Your task to perform on an android device: turn on translation in the chrome app Image 0: 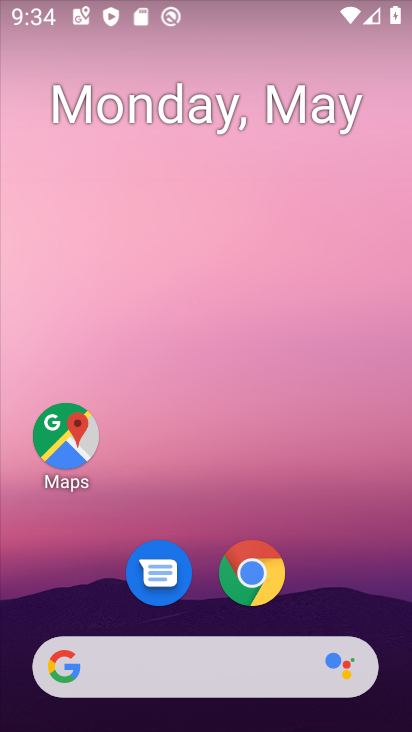
Step 0: click (267, 576)
Your task to perform on an android device: turn on translation in the chrome app Image 1: 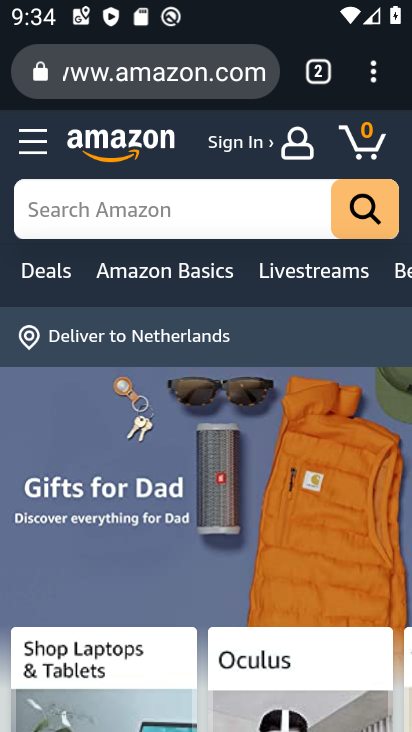
Step 1: click (380, 72)
Your task to perform on an android device: turn on translation in the chrome app Image 2: 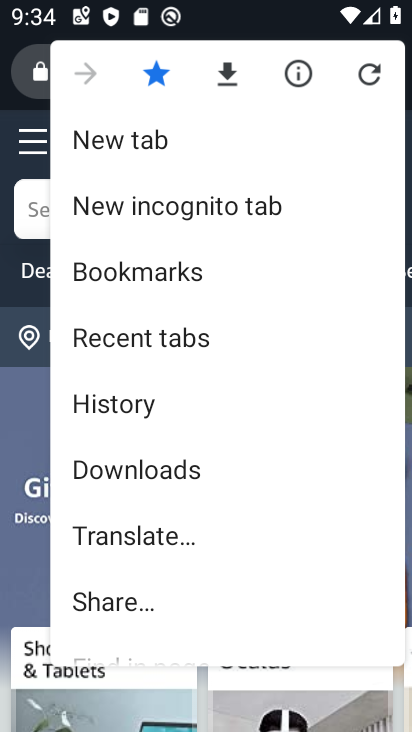
Step 2: drag from (198, 595) to (152, 348)
Your task to perform on an android device: turn on translation in the chrome app Image 3: 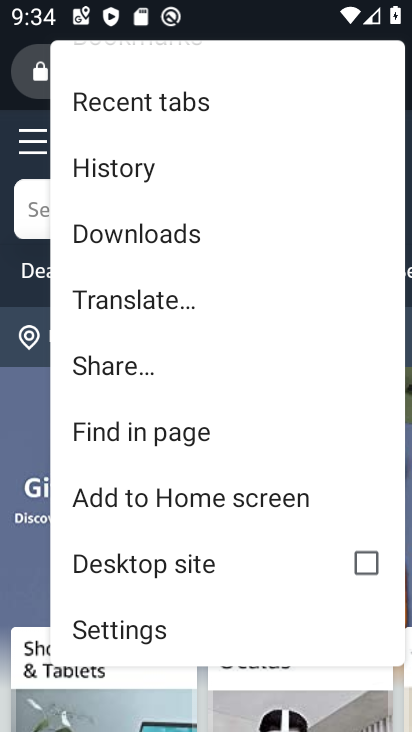
Step 3: click (142, 634)
Your task to perform on an android device: turn on translation in the chrome app Image 4: 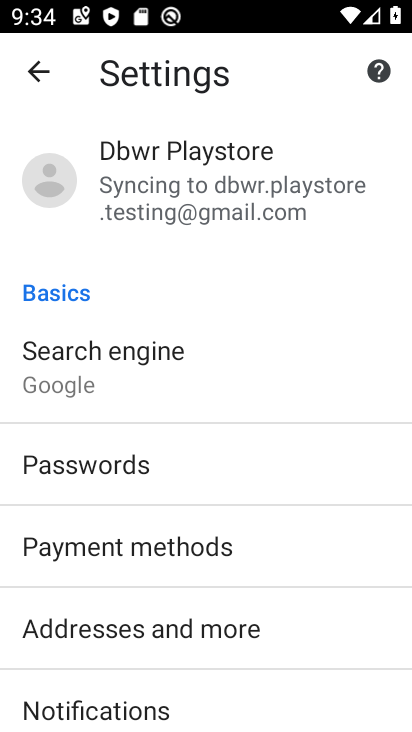
Step 4: drag from (173, 548) to (194, 317)
Your task to perform on an android device: turn on translation in the chrome app Image 5: 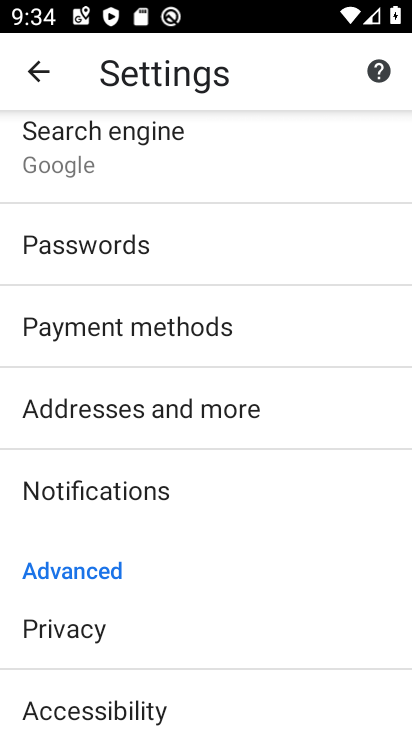
Step 5: drag from (116, 619) to (146, 332)
Your task to perform on an android device: turn on translation in the chrome app Image 6: 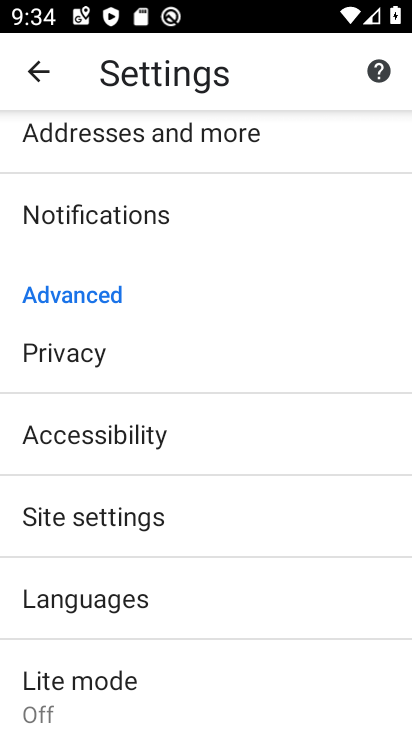
Step 6: click (209, 604)
Your task to perform on an android device: turn on translation in the chrome app Image 7: 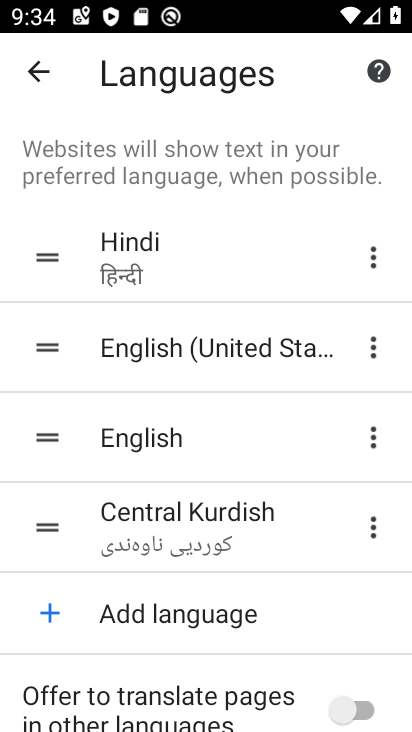
Step 7: click (352, 698)
Your task to perform on an android device: turn on translation in the chrome app Image 8: 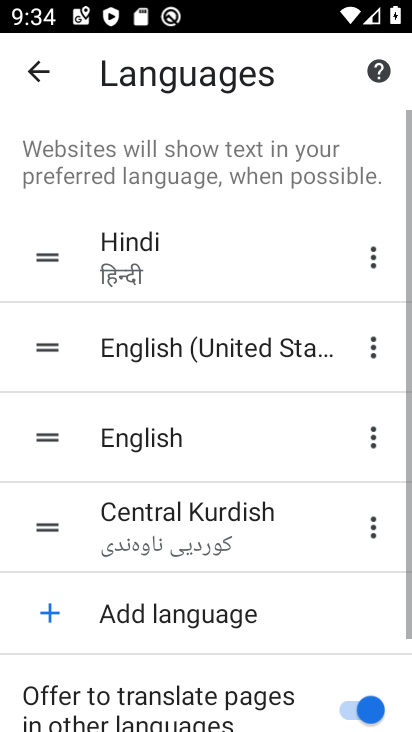
Step 8: task complete